Your task to perform on an android device: turn on location history Image 0: 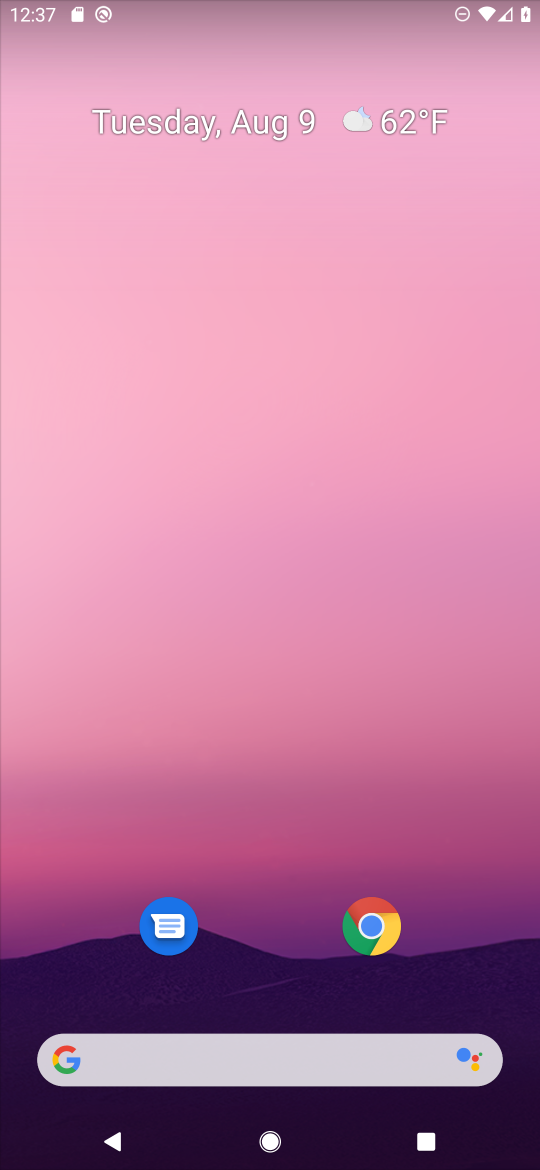
Step 0: drag from (194, 483) to (386, 61)
Your task to perform on an android device: turn on location history Image 1: 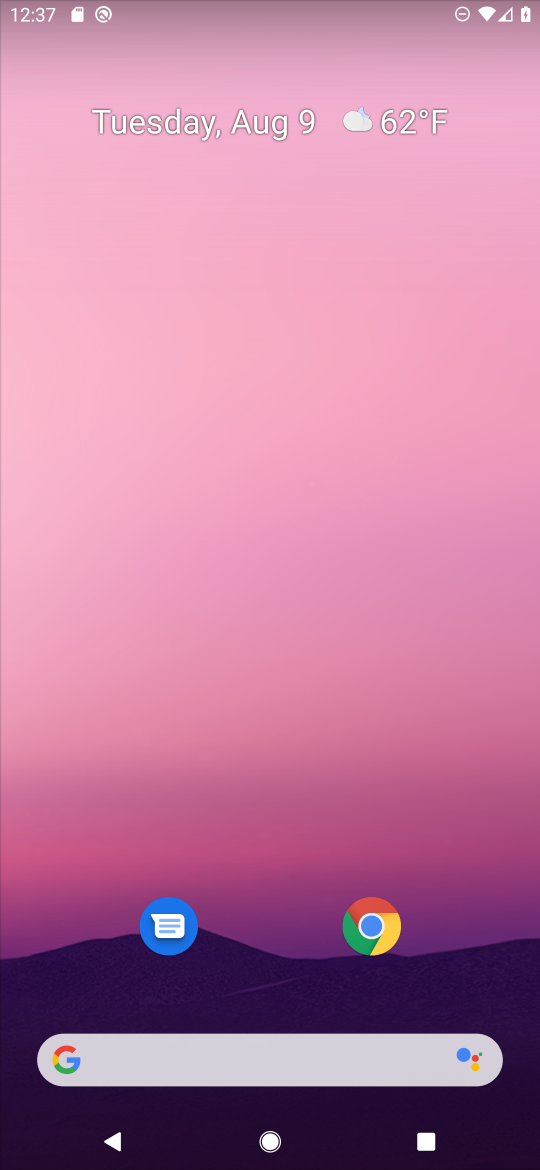
Step 1: press home button
Your task to perform on an android device: turn on location history Image 2: 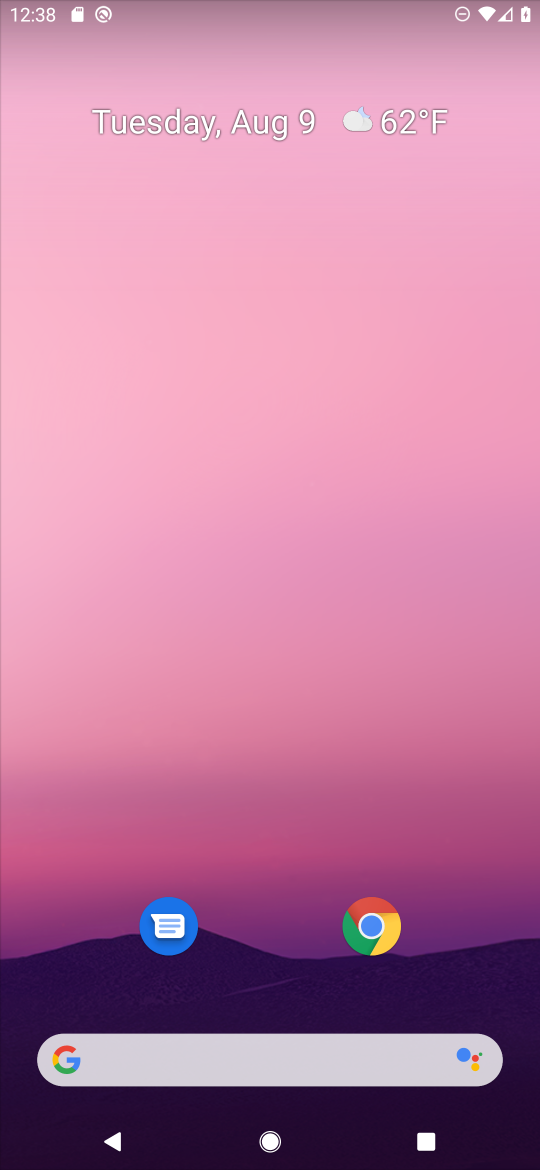
Step 2: drag from (60, 829) to (255, 222)
Your task to perform on an android device: turn on location history Image 3: 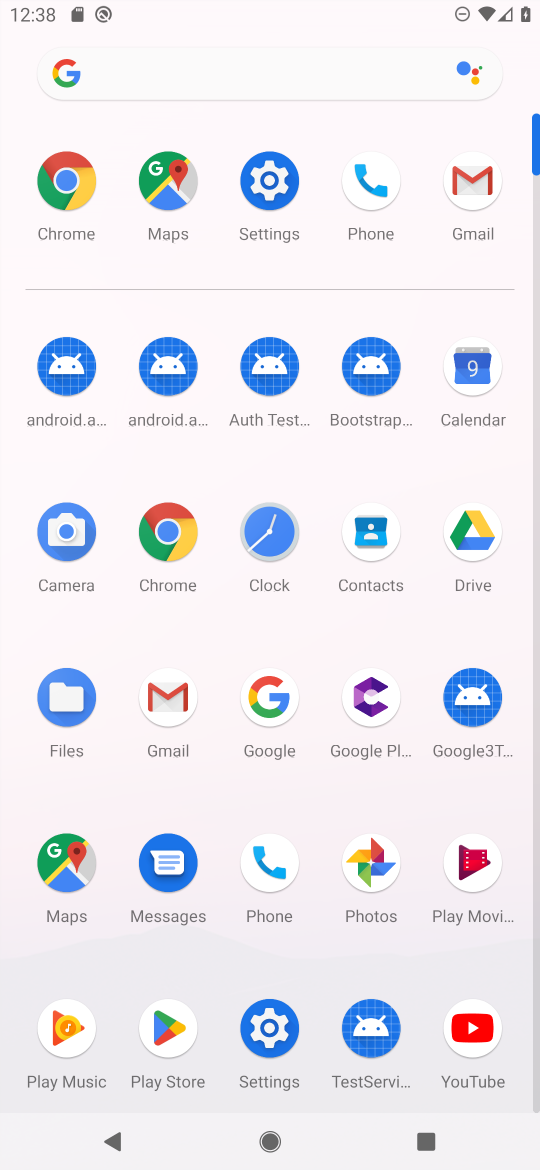
Step 3: click (241, 188)
Your task to perform on an android device: turn on location history Image 4: 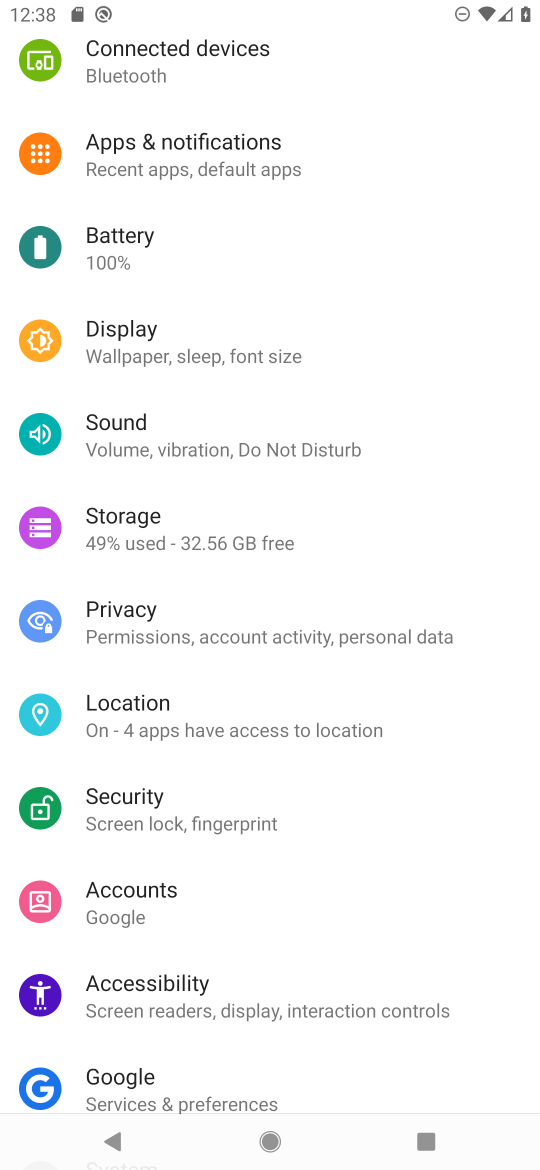
Step 4: click (126, 705)
Your task to perform on an android device: turn on location history Image 5: 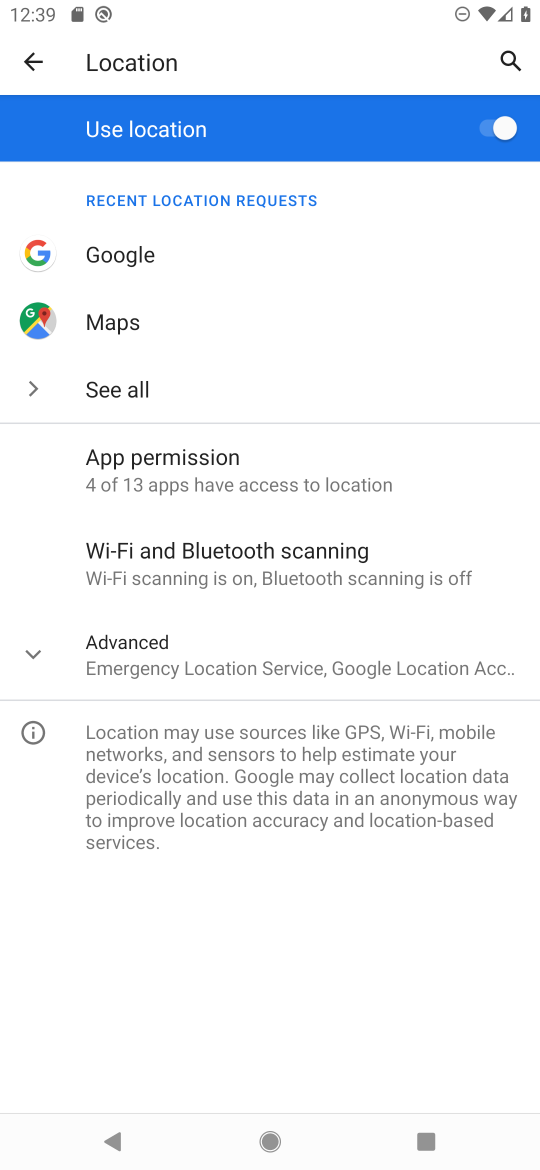
Step 5: click (107, 665)
Your task to perform on an android device: turn on location history Image 6: 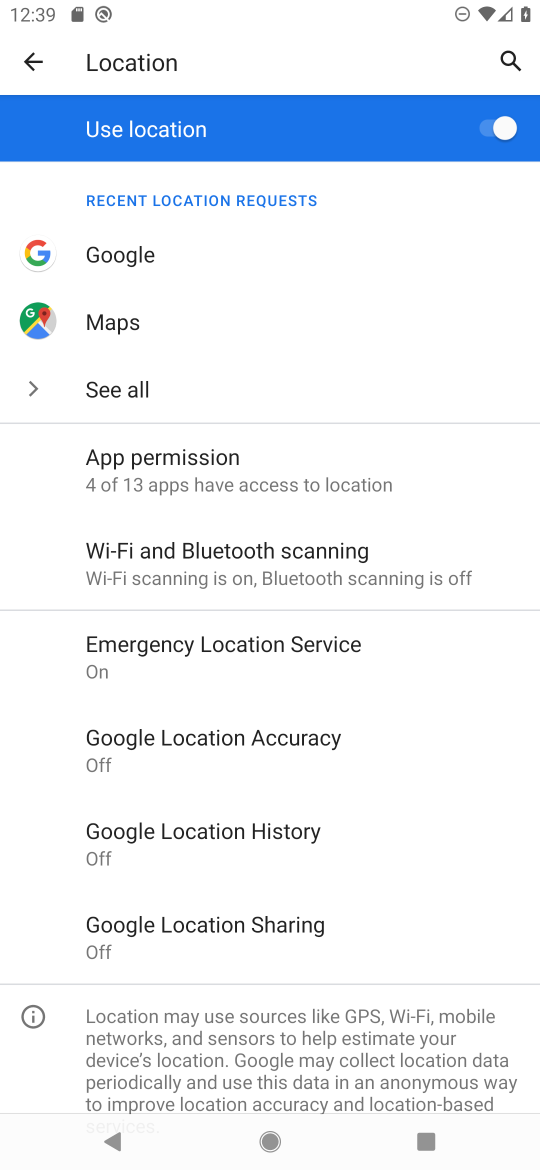
Step 6: click (277, 830)
Your task to perform on an android device: turn on location history Image 7: 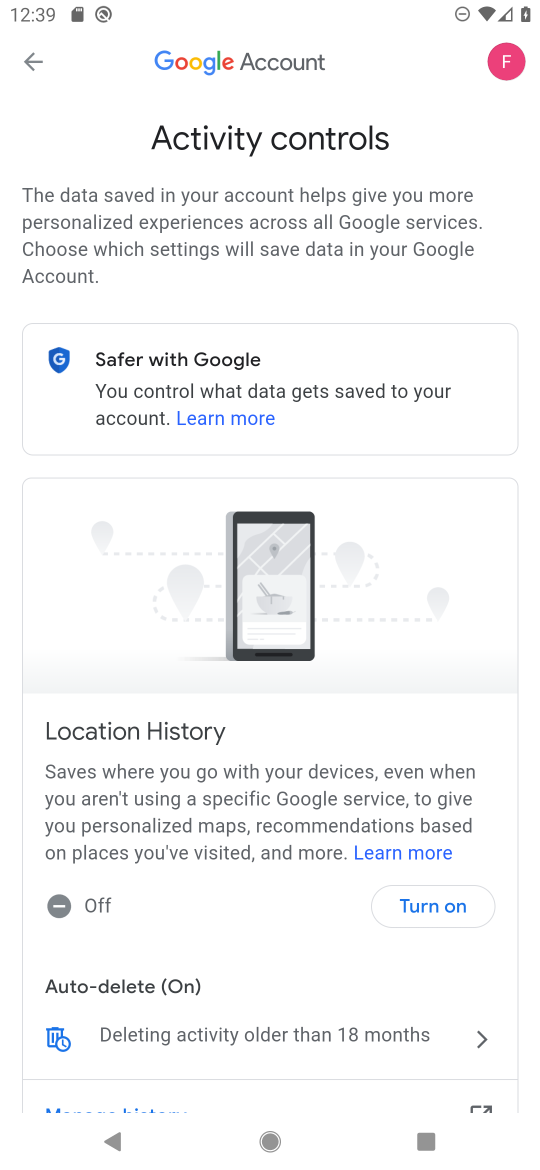
Step 7: click (410, 909)
Your task to perform on an android device: turn on location history Image 8: 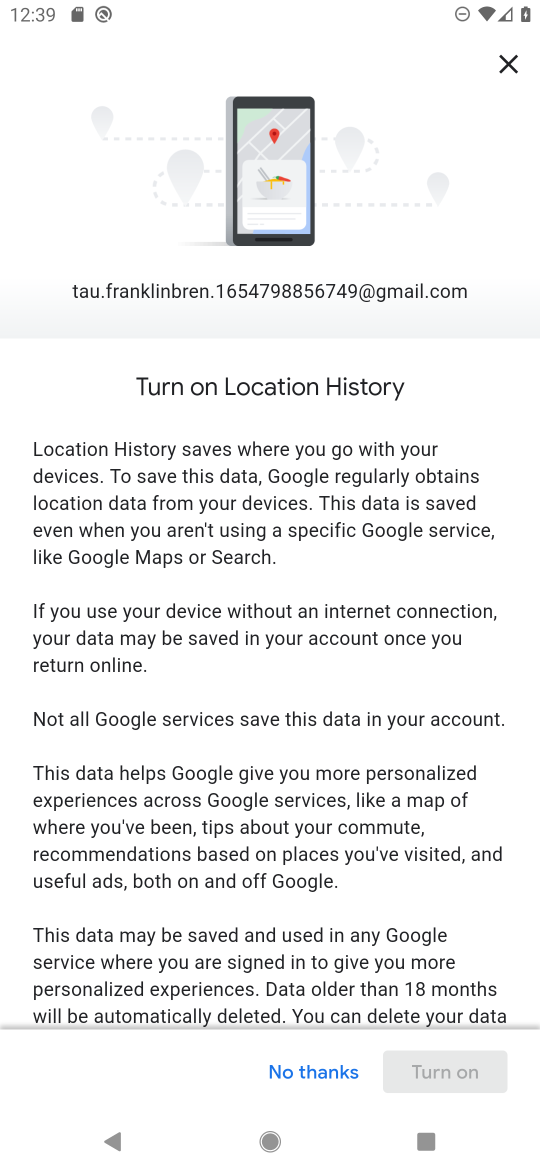
Step 8: drag from (239, 923) to (365, 181)
Your task to perform on an android device: turn on location history Image 9: 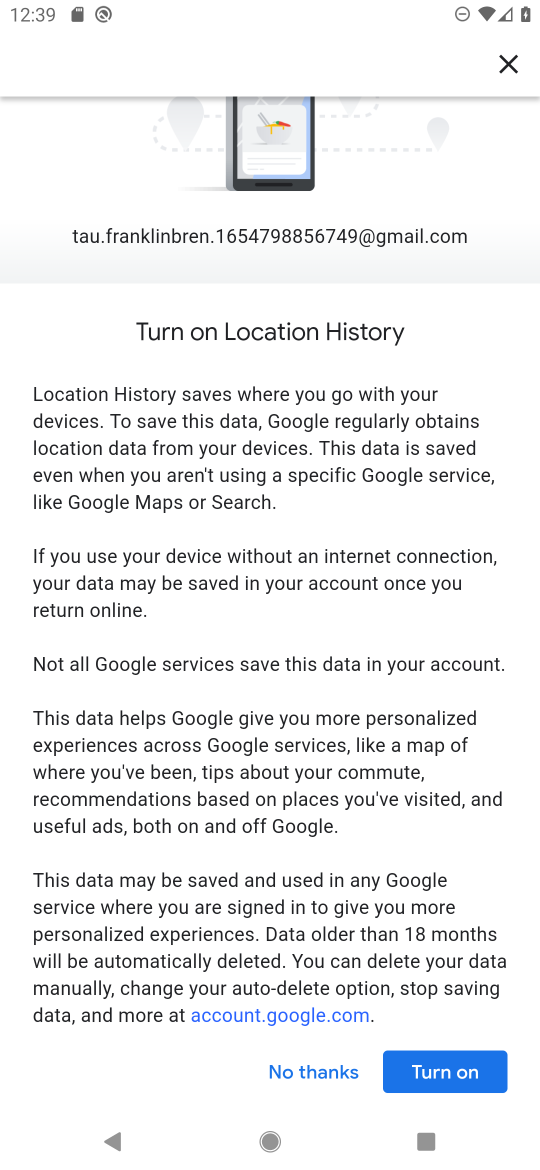
Step 9: click (473, 1087)
Your task to perform on an android device: turn on location history Image 10: 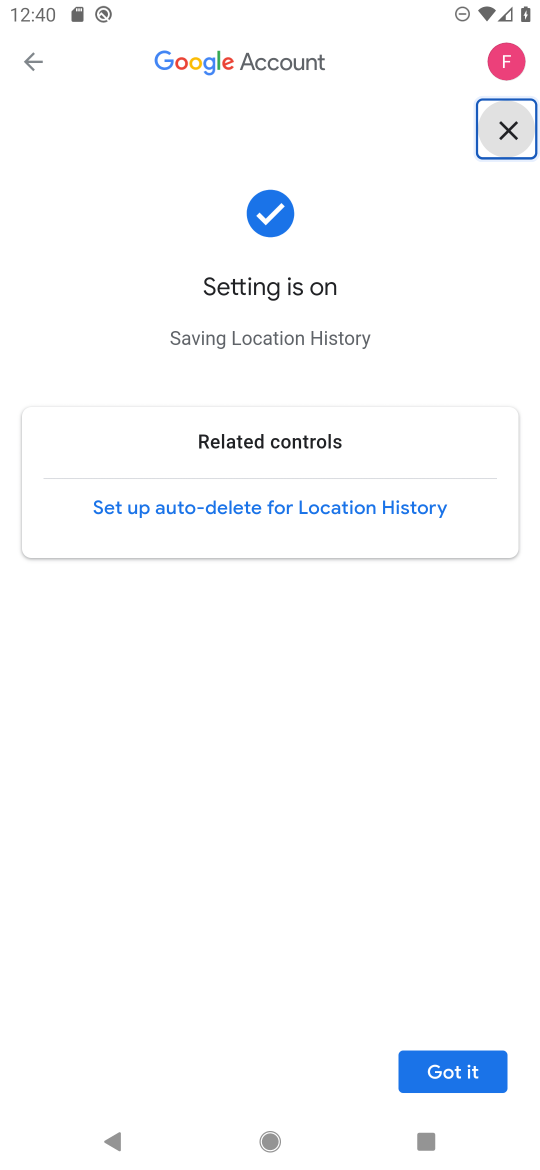
Step 10: click (474, 1086)
Your task to perform on an android device: turn on location history Image 11: 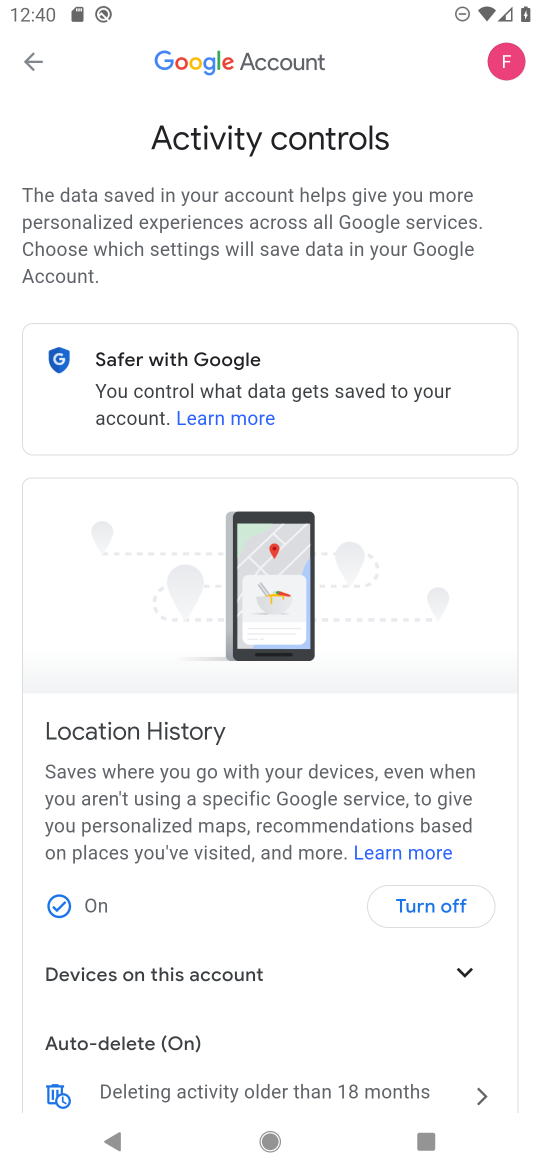
Step 11: task complete